Your task to perform on an android device: Turn on the flashlight Image 0: 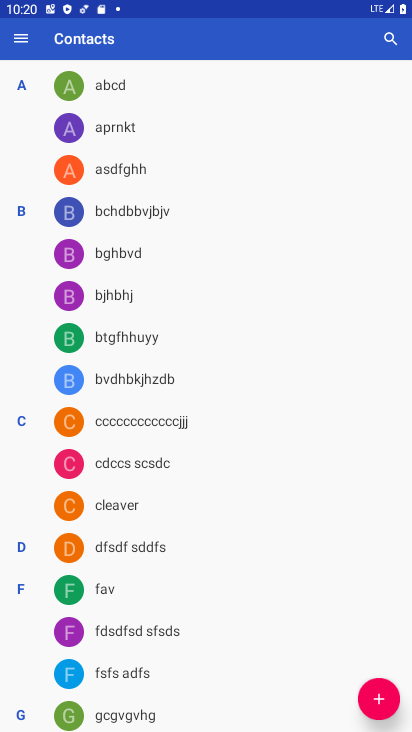
Step 0: press home button
Your task to perform on an android device: Turn on the flashlight Image 1: 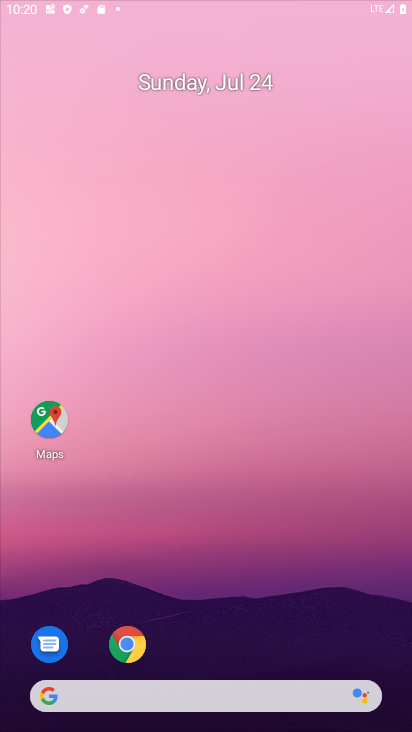
Step 1: drag from (21, 598) to (351, 97)
Your task to perform on an android device: Turn on the flashlight Image 2: 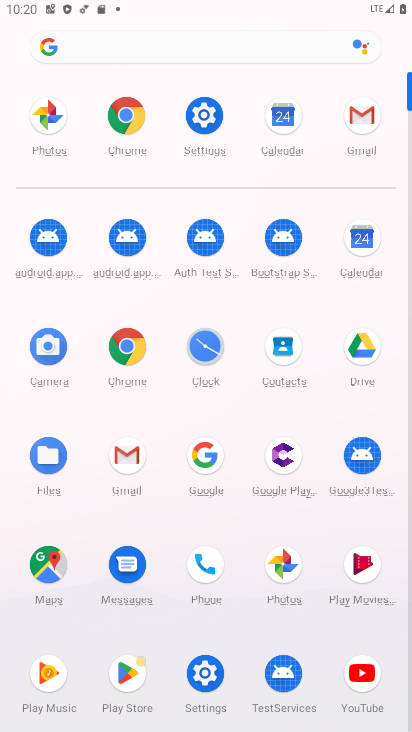
Step 2: click (206, 108)
Your task to perform on an android device: Turn on the flashlight Image 3: 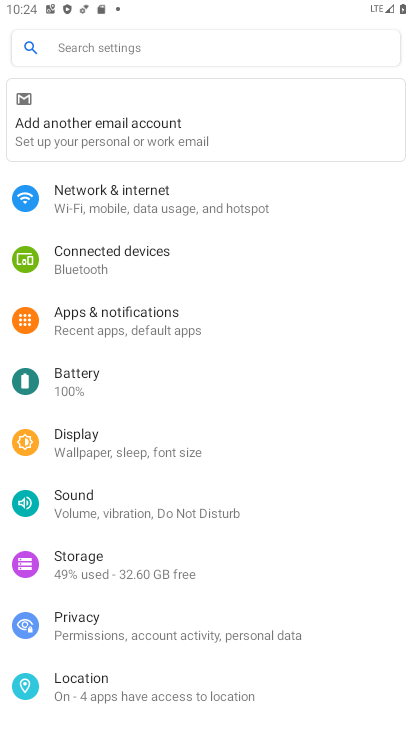
Step 3: task complete